Your task to perform on an android device: turn off location history Image 0: 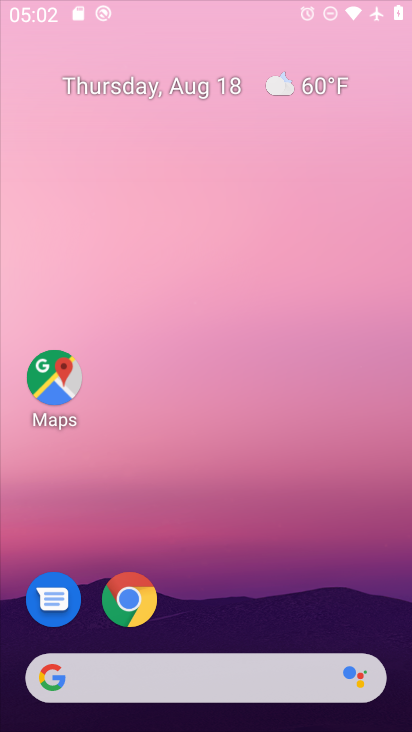
Step 0: press home button
Your task to perform on an android device: turn off location history Image 1: 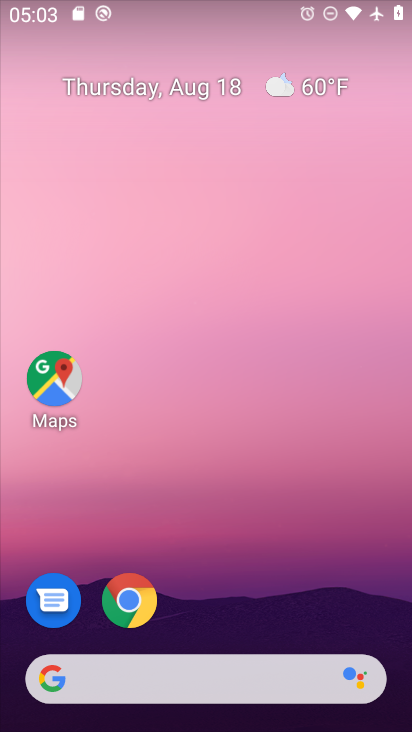
Step 1: drag from (240, 605) to (244, 78)
Your task to perform on an android device: turn off location history Image 2: 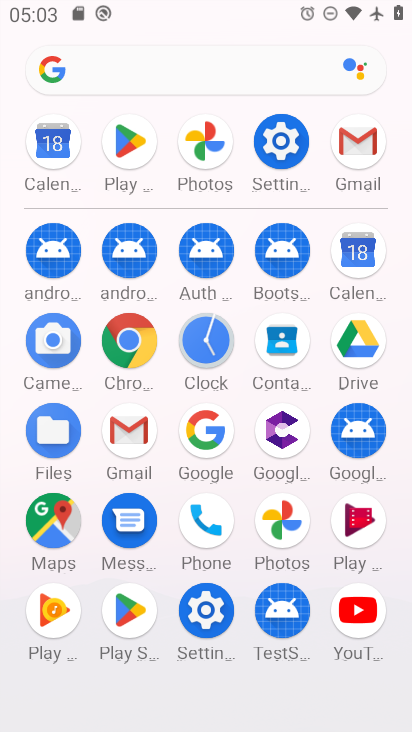
Step 2: click (270, 148)
Your task to perform on an android device: turn off location history Image 3: 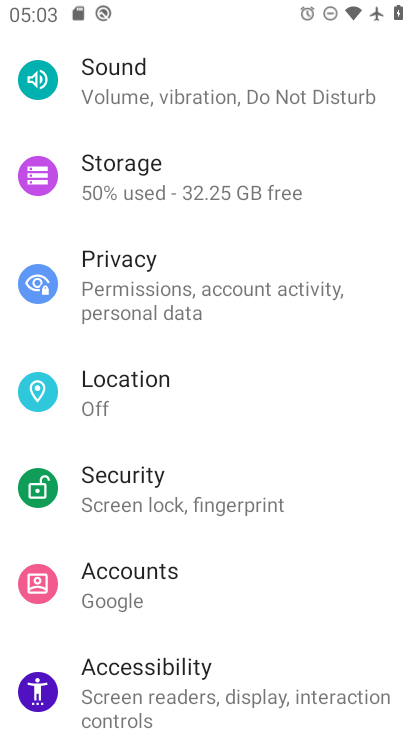
Step 3: click (94, 395)
Your task to perform on an android device: turn off location history Image 4: 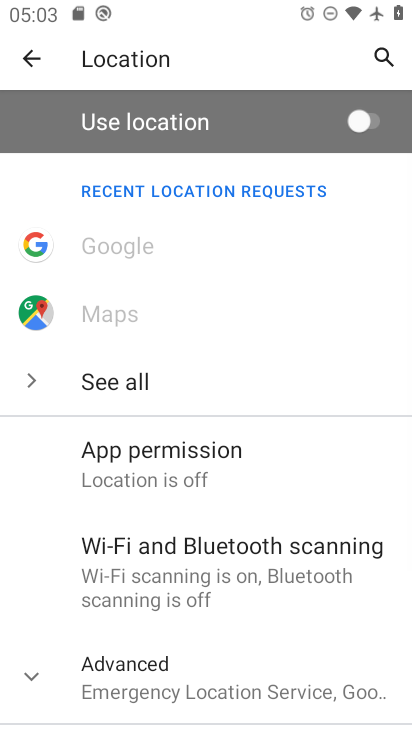
Step 4: click (98, 679)
Your task to perform on an android device: turn off location history Image 5: 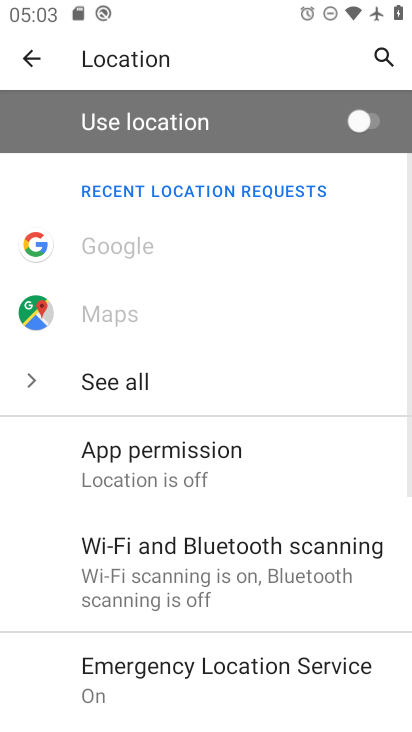
Step 5: drag from (290, 693) to (261, 205)
Your task to perform on an android device: turn off location history Image 6: 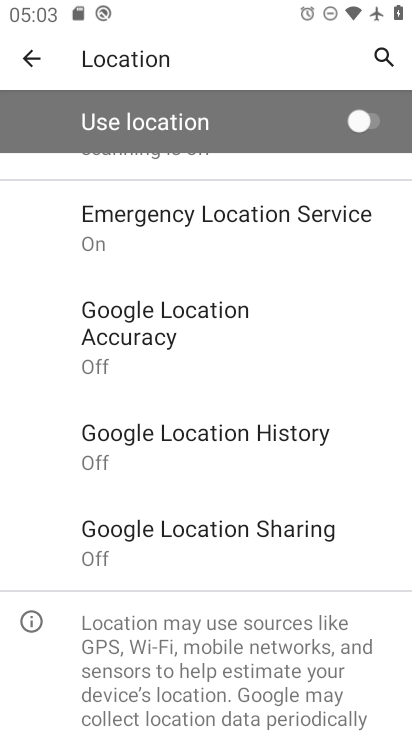
Step 6: click (183, 443)
Your task to perform on an android device: turn off location history Image 7: 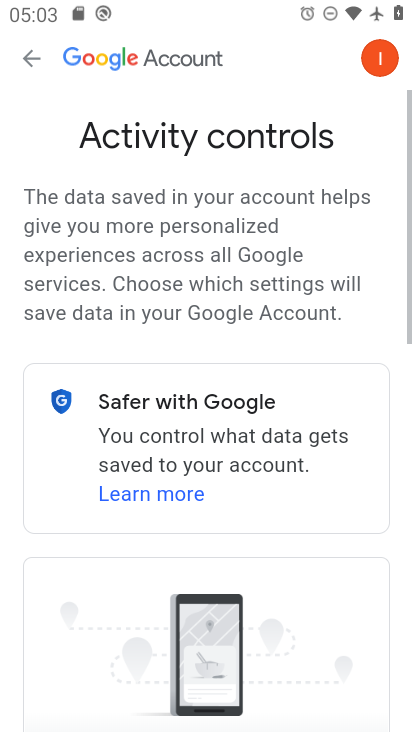
Step 7: task complete